Your task to perform on an android device: open a bookmark in the chrome app Image 0: 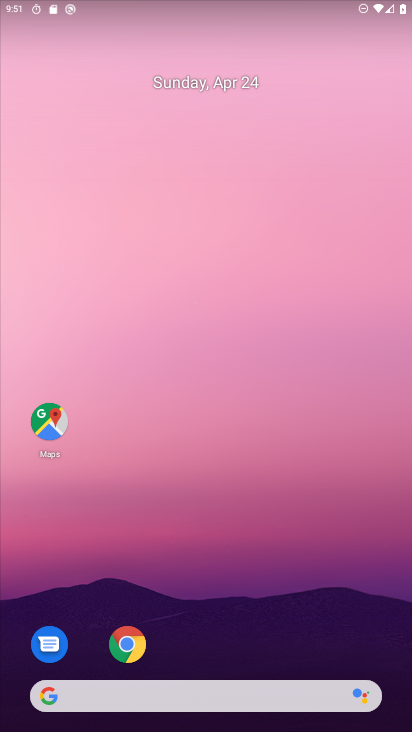
Step 0: drag from (228, 677) to (149, 18)
Your task to perform on an android device: open a bookmark in the chrome app Image 1: 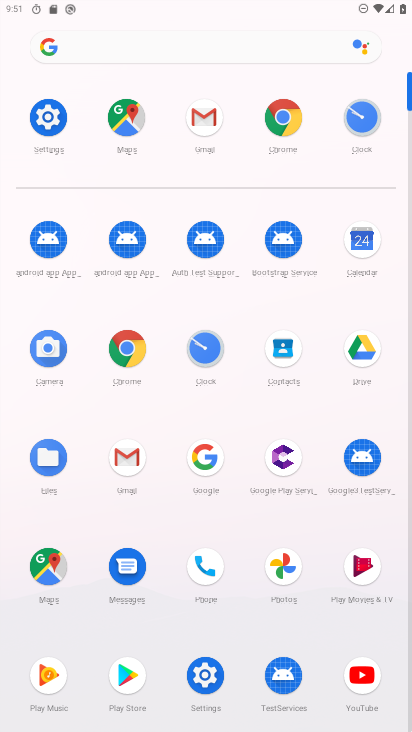
Step 1: click (142, 350)
Your task to perform on an android device: open a bookmark in the chrome app Image 2: 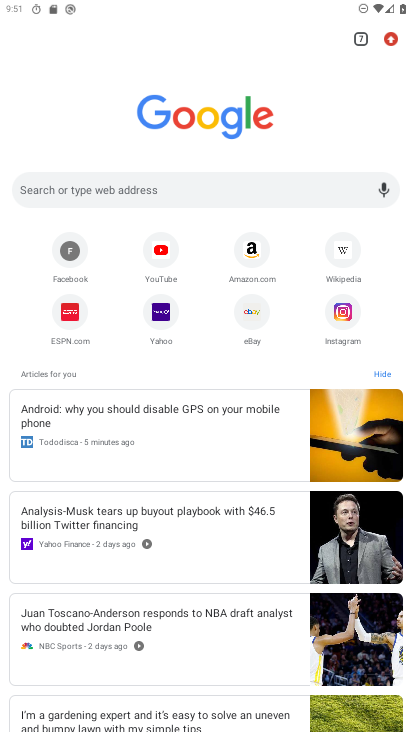
Step 2: task complete